Your task to perform on an android device: open chrome privacy settings Image 0: 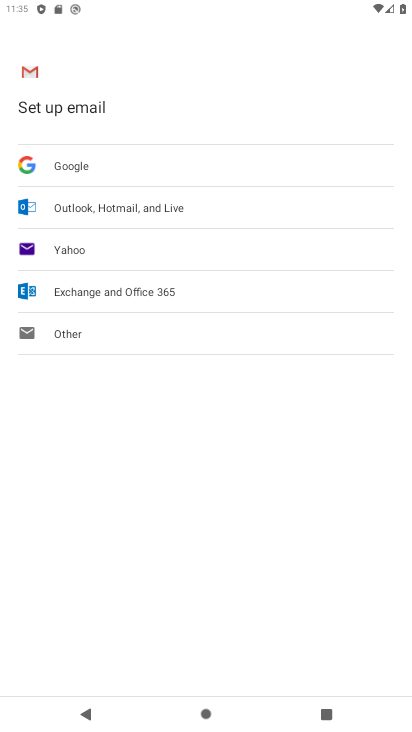
Step 0: press back button
Your task to perform on an android device: open chrome privacy settings Image 1: 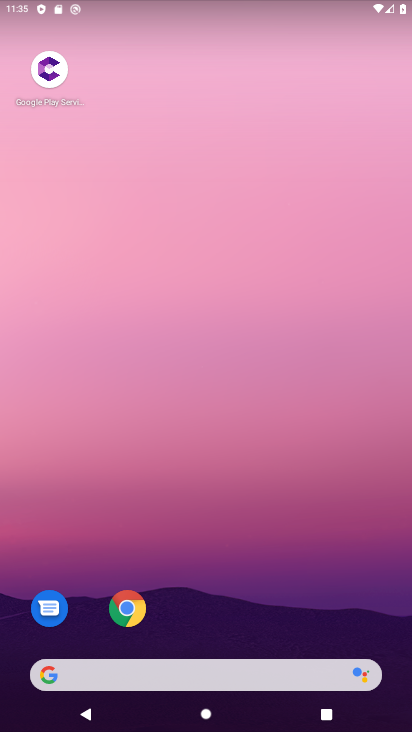
Step 1: drag from (313, 596) to (203, 5)
Your task to perform on an android device: open chrome privacy settings Image 2: 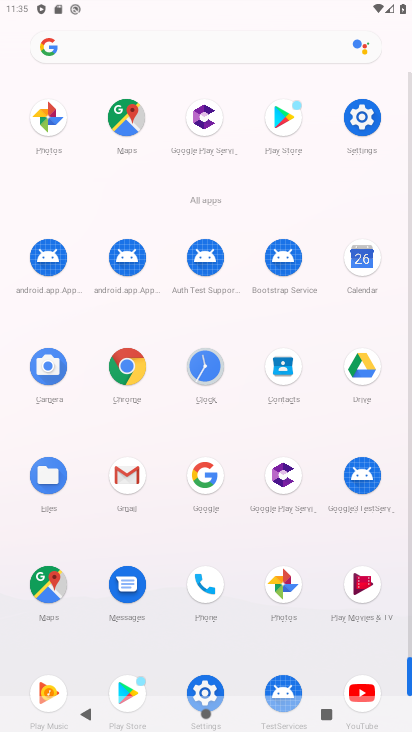
Step 2: click (125, 361)
Your task to perform on an android device: open chrome privacy settings Image 3: 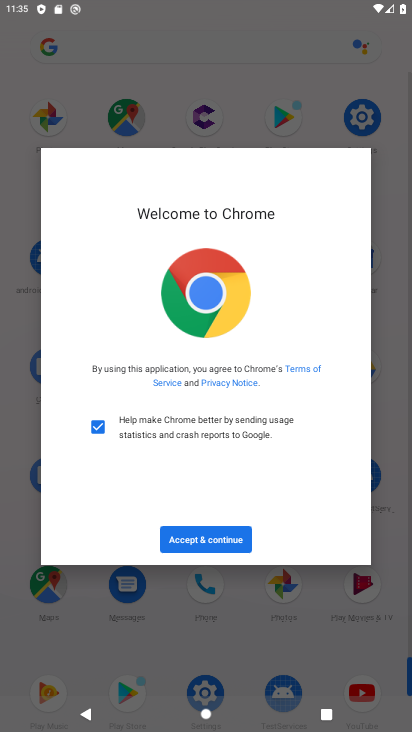
Step 3: click (194, 543)
Your task to perform on an android device: open chrome privacy settings Image 4: 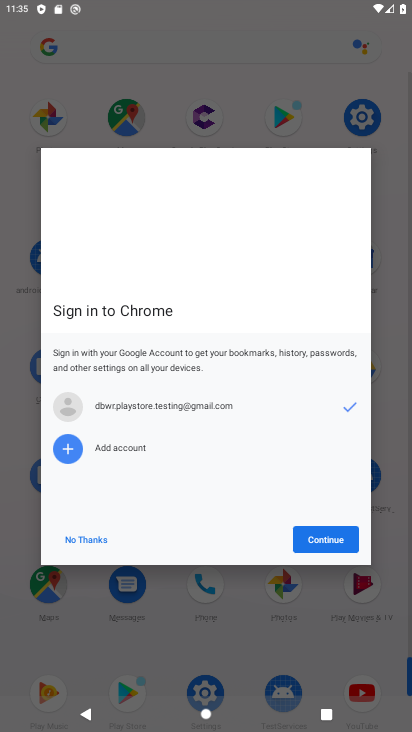
Step 4: click (326, 536)
Your task to perform on an android device: open chrome privacy settings Image 5: 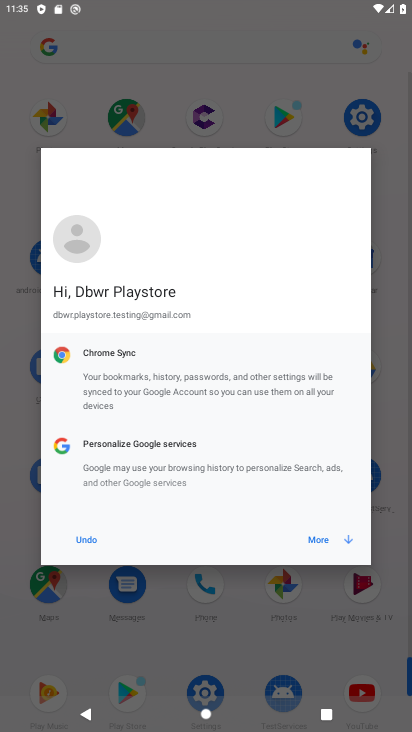
Step 5: click (326, 536)
Your task to perform on an android device: open chrome privacy settings Image 6: 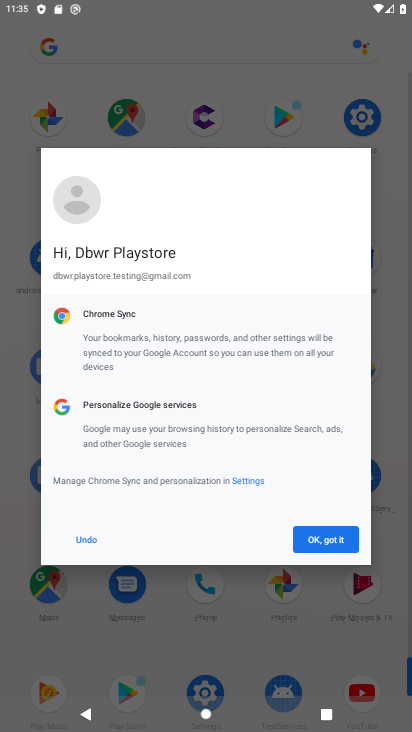
Step 6: click (325, 536)
Your task to perform on an android device: open chrome privacy settings Image 7: 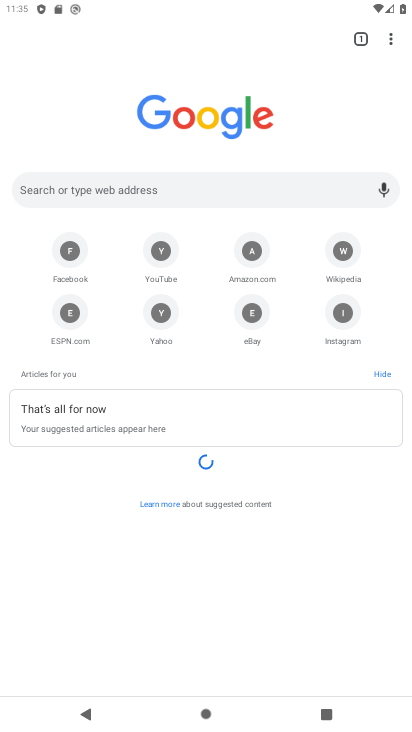
Step 7: drag from (390, 44) to (249, 332)
Your task to perform on an android device: open chrome privacy settings Image 8: 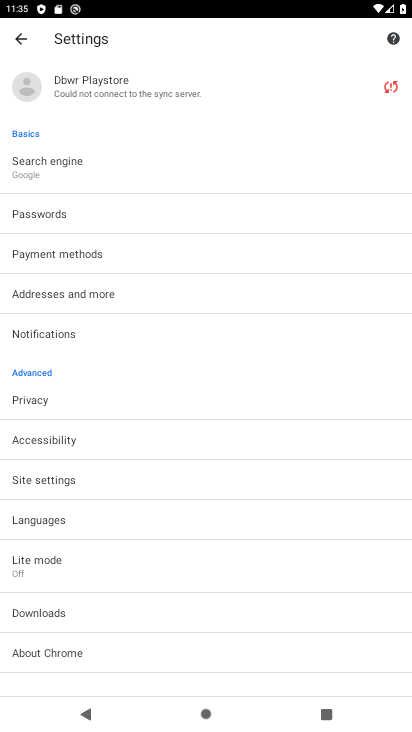
Step 8: click (72, 394)
Your task to perform on an android device: open chrome privacy settings Image 9: 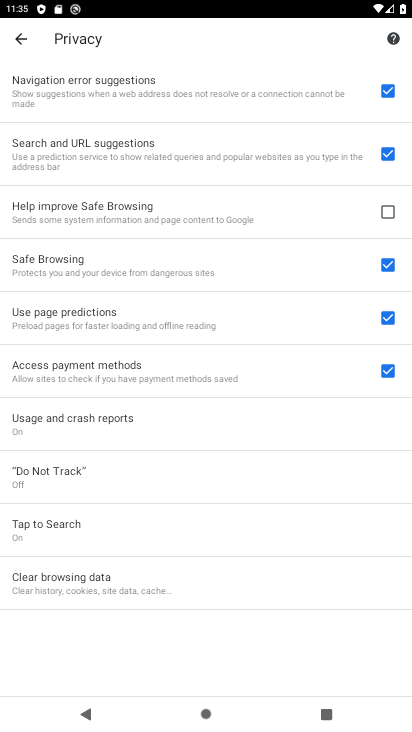
Step 9: task complete